Your task to perform on an android device: turn vacation reply on in the gmail app Image 0: 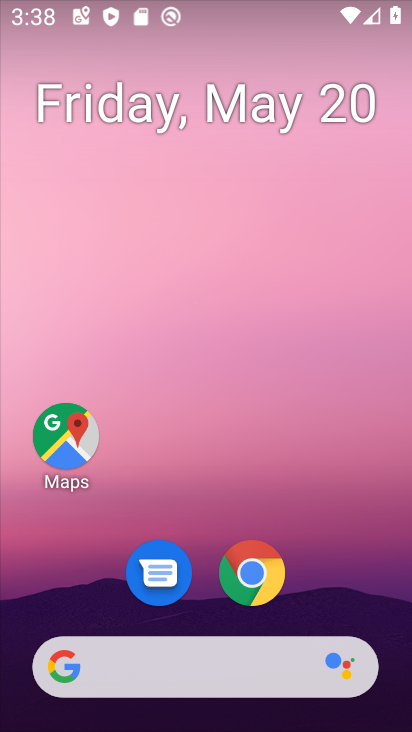
Step 0: drag from (396, 638) to (334, 86)
Your task to perform on an android device: turn vacation reply on in the gmail app Image 1: 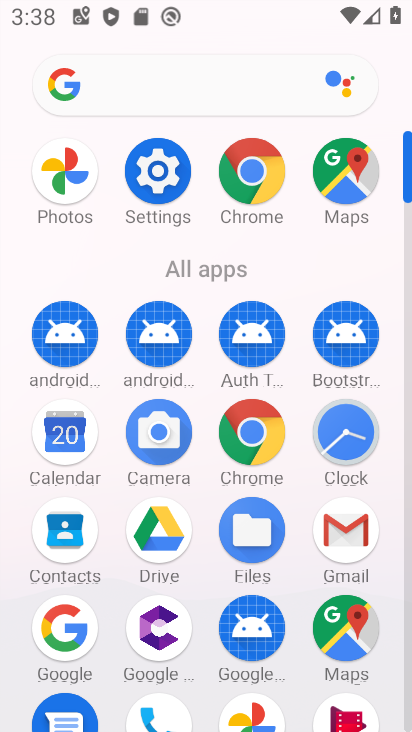
Step 1: click (405, 700)
Your task to perform on an android device: turn vacation reply on in the gmail app Image 2: 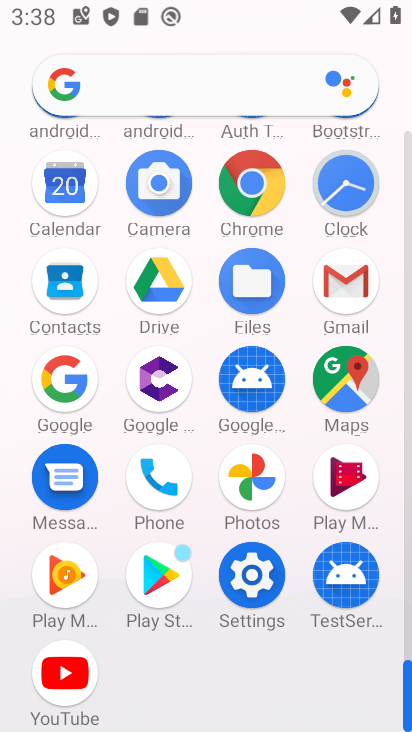
Step 2: click (341, 273)
Your task to perform on an android device: turn vacation reply on in the gmail app Image 3: 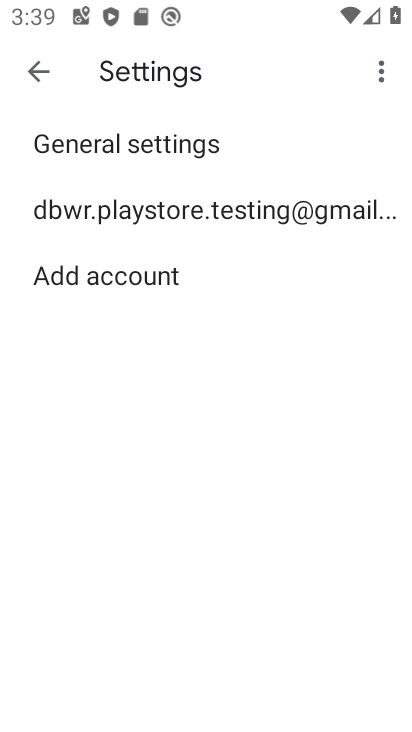
Step 3: click (182, 210)
Your task to perform on an android device: turn vacation reply on in the gmail app Image 4: 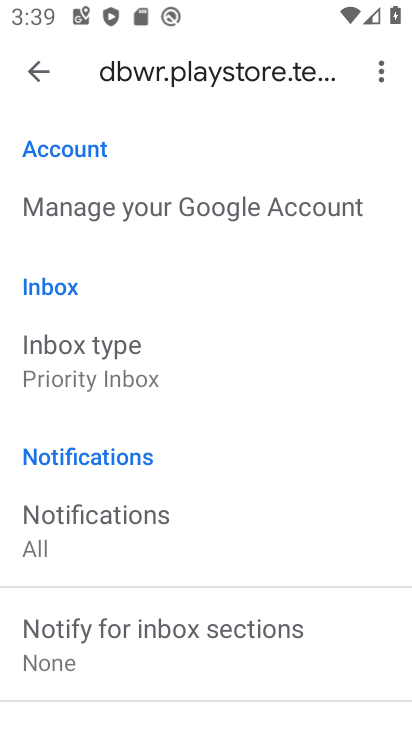
Step 4: drag from (246, 579) to (271, 156)
Your task to perform on an android device: turn vacation reply on in the gmail app Image 5: 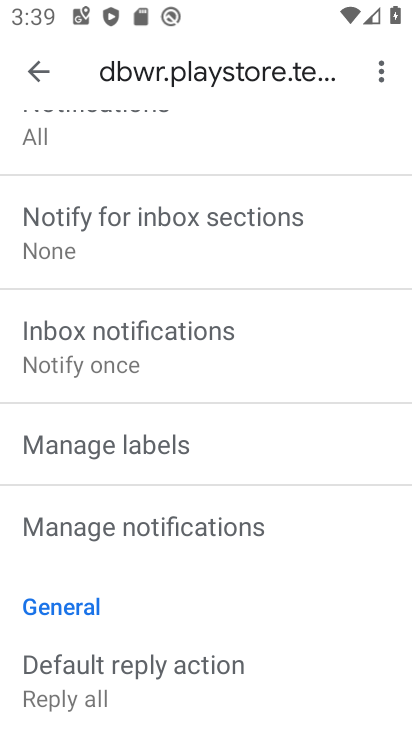
Step 5: drag from (308, 659) to (313, 190)
Your task to perform on an android device: turn vacation reply on in the gmail app Image 6: 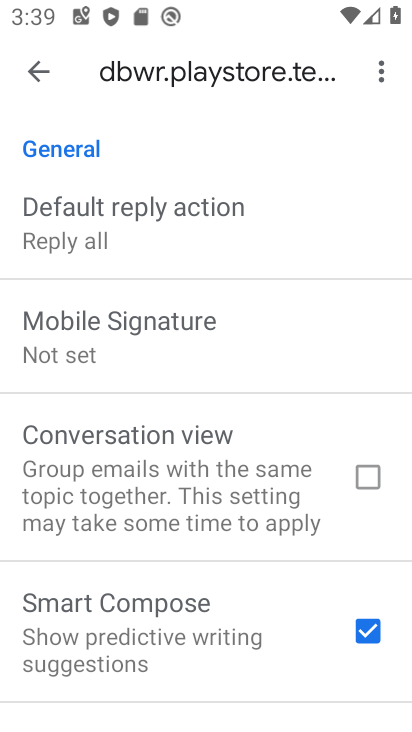
Step 6: drag from (301, 598) to (265, 193)
Your task to perform on an android device: turn vacation reply on in the gmail app Image 7: 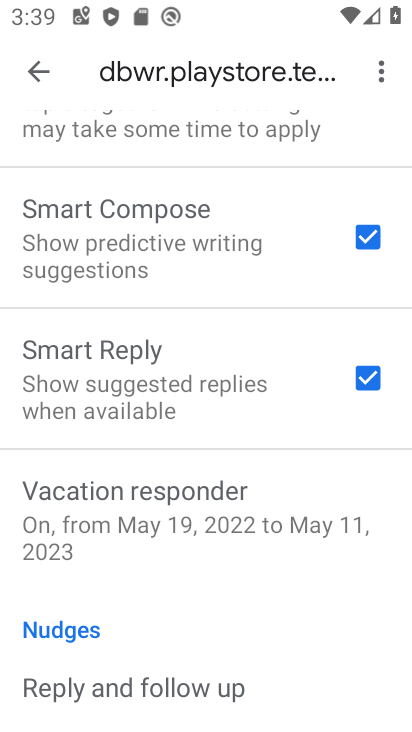
Step 7: click (157, 516)
Your task to perform on an android device: turn vacation reply on in the gmail app Image 8: 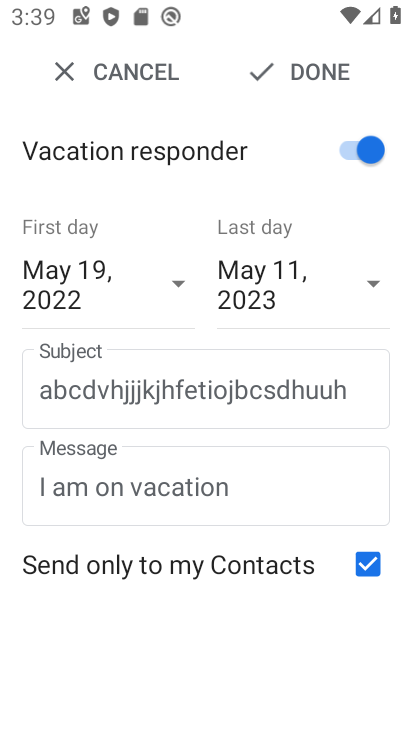
Step 8: task complete